Your task to perform on an android device: star an email in the gmail app Image 0: 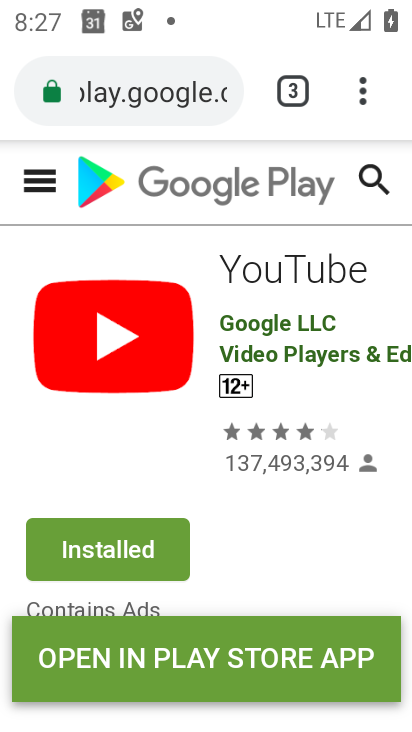
Step 0: press home button
Your task to perform on an android device: star an email in the gmail app Image 1: 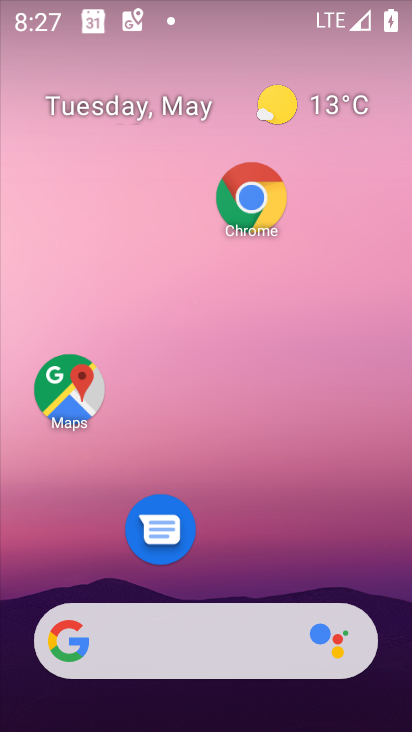
Step 1: drag from (314, 544) to (265, 75)
Your task to perform on an android device: star an email in the gmail app Image 2: 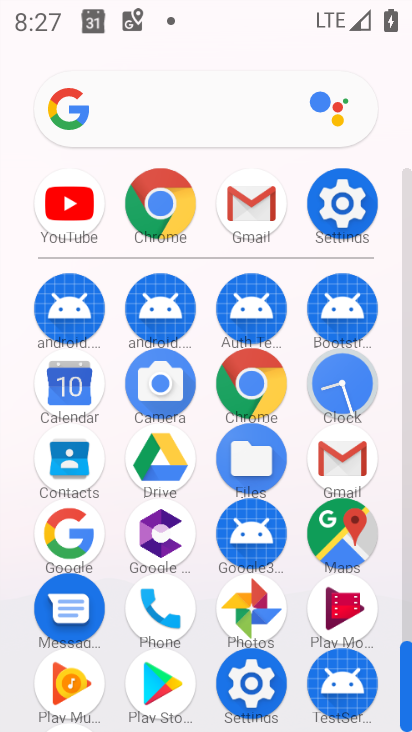
Step 2: click (253, 200)
Your task to perform on an android device: star an email in the gmail app Image 3: 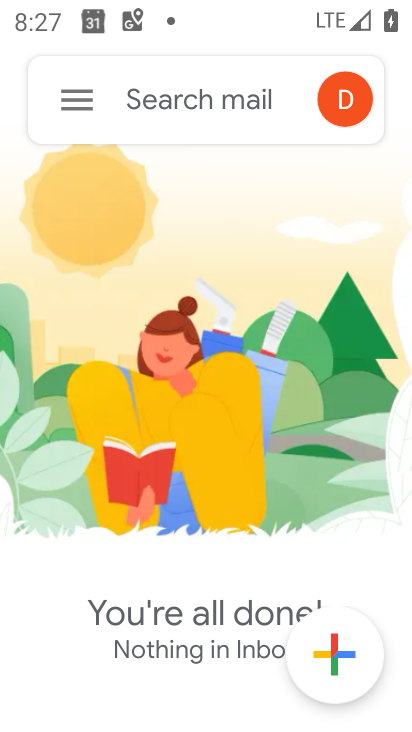
Step 3: click (85, 88)
Your task to perform on an android device: star an email in the gmail app Image 4: 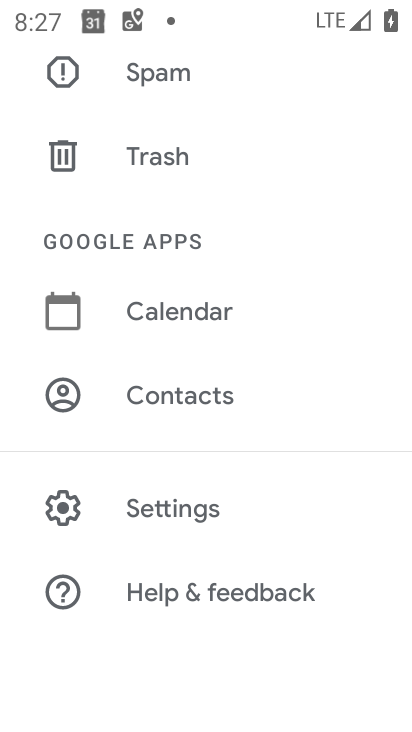
Step 4: drag from (217, 292) to (324, 695)
Your task to perform on an android device: star an email in the gmail app Image 5: 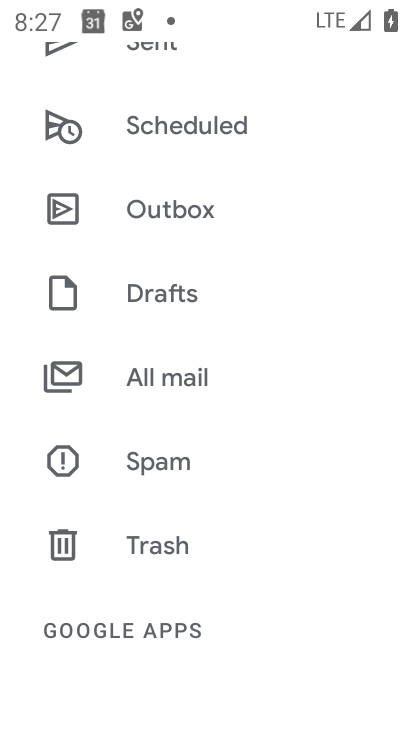
Step 5: drag from (275, 185) to (238, 729)
Your task to perform on an android device: star an email in the gmail app Image 6: 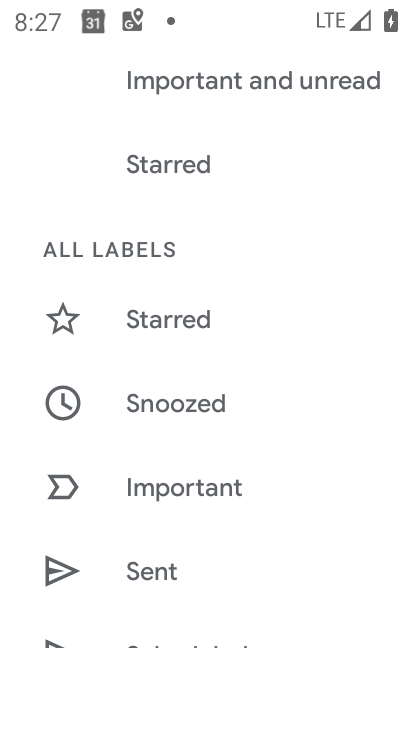
Step 6: click (221, 184)
Your task to perform on an android device: star an email in the gmail app Image 7: 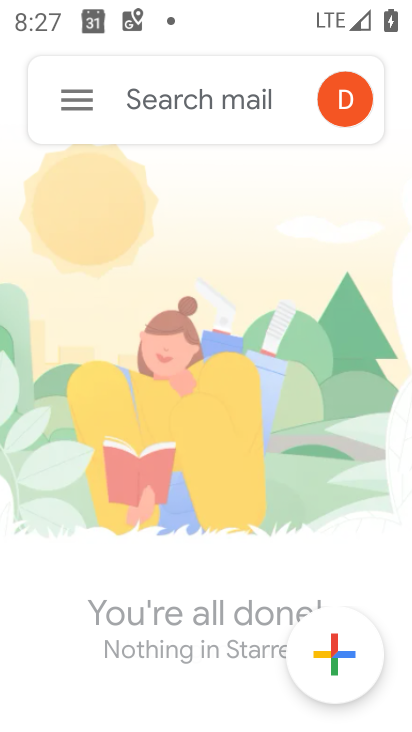
Step 7: task complete